Your task to perform on an android device: open the mobile data screen to see how much data has been used Image 0: 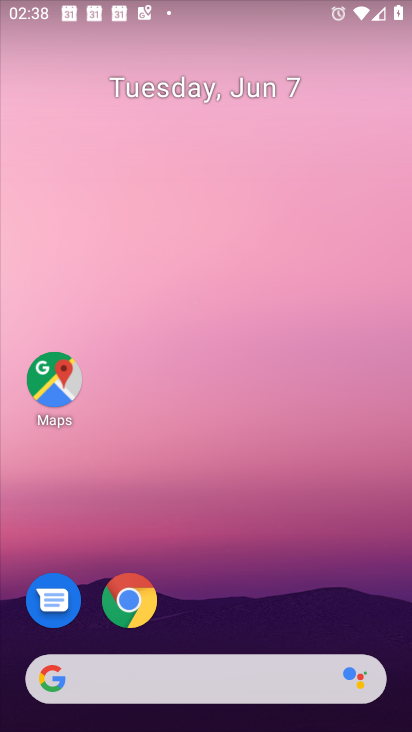
Step 0: drag from (228, 731) to (224, 192)
Your task to perform on an android device: open the mobile data screen to see how much data has been used Image 1: 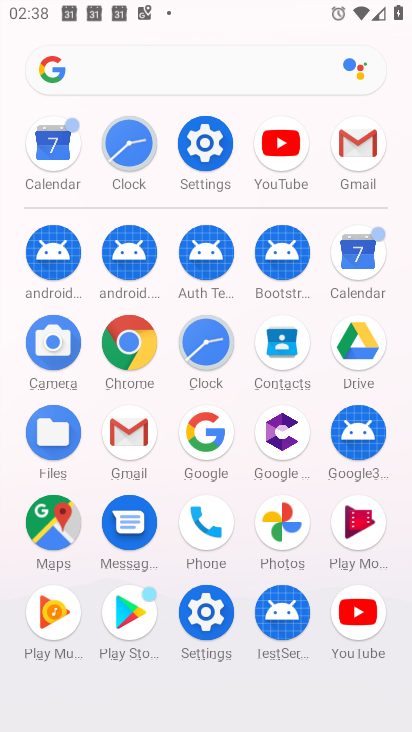
Step 1: click (203, 140)
Your task to perform on an android device: open the mobile data screen to see how much data has been used Image 2: 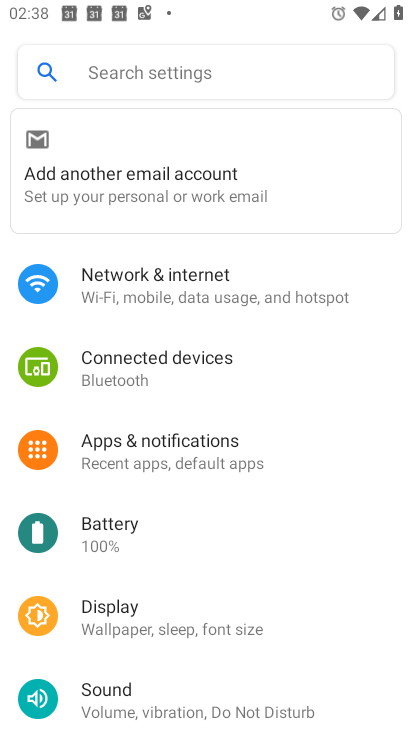
Step 2: click (148, 281)
Your task to perform on an android device: open the mobile data screen to see how much data has been used Image 3: 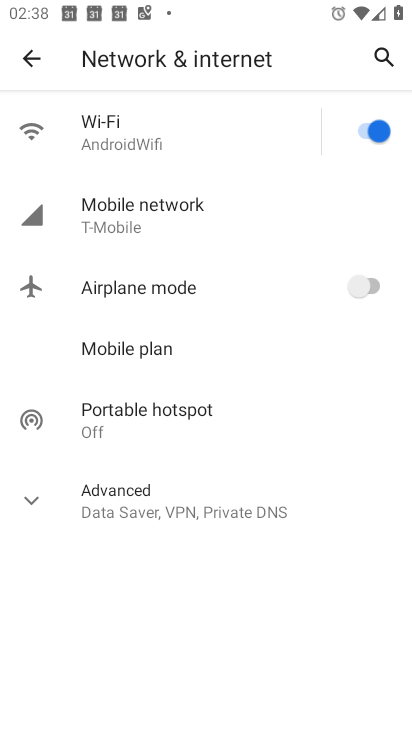
Step 3: click (123, 212)
Your task to perform on an android device: open the mobile data screen to see how much data has been used Image 4: 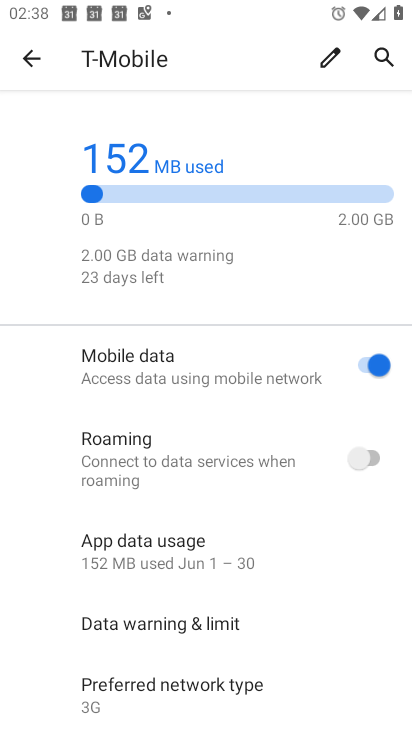
Step 4: click (118, 553)
Your task to perform on an android device: open the mobile data screen to see how much data has been used Image 5: 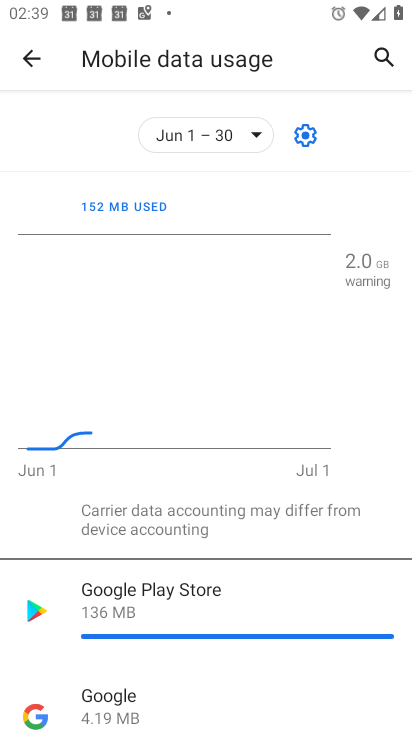
Step 5: task complete